Your task to perform on an android device: open app "Speedtest by Ookla" (install if not already installed) Image 0: 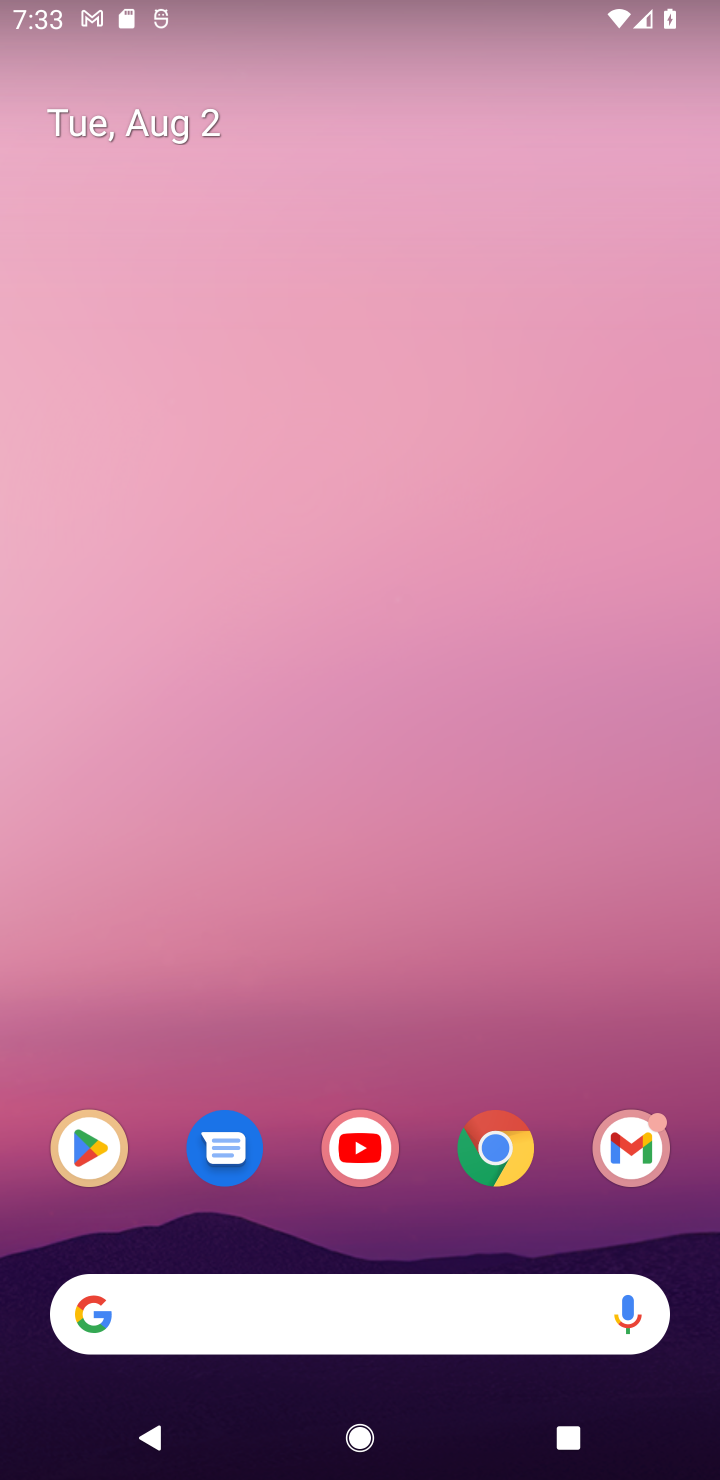
Step 0: drag from (551, 1049) to (215, 90)
Your task to perform on an android device: open app "Speedtest by Ookla" (install if not already installed) Image 1: 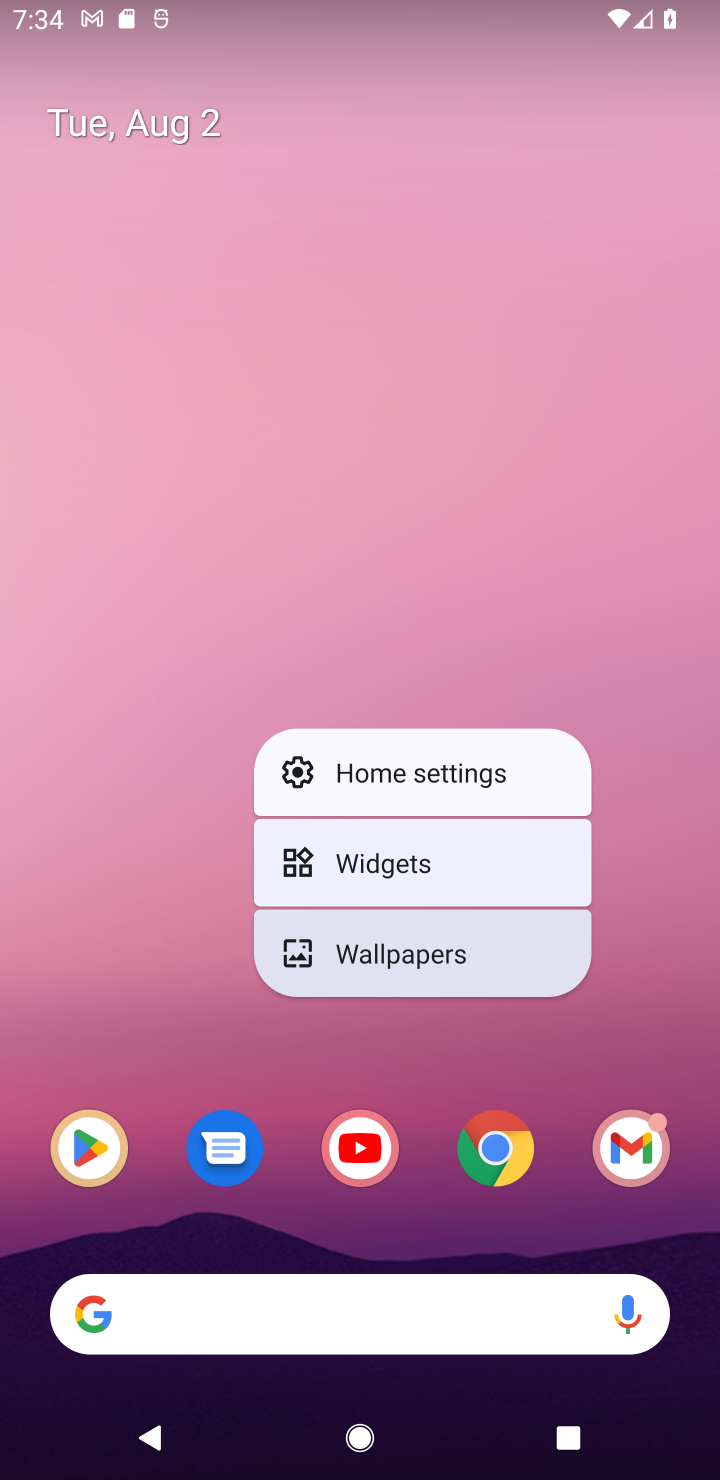
Step 1: click (323, 283)
Your task to perform on an android device: open app "Speedtest by Ookla" (install if not already installed) Image 2: 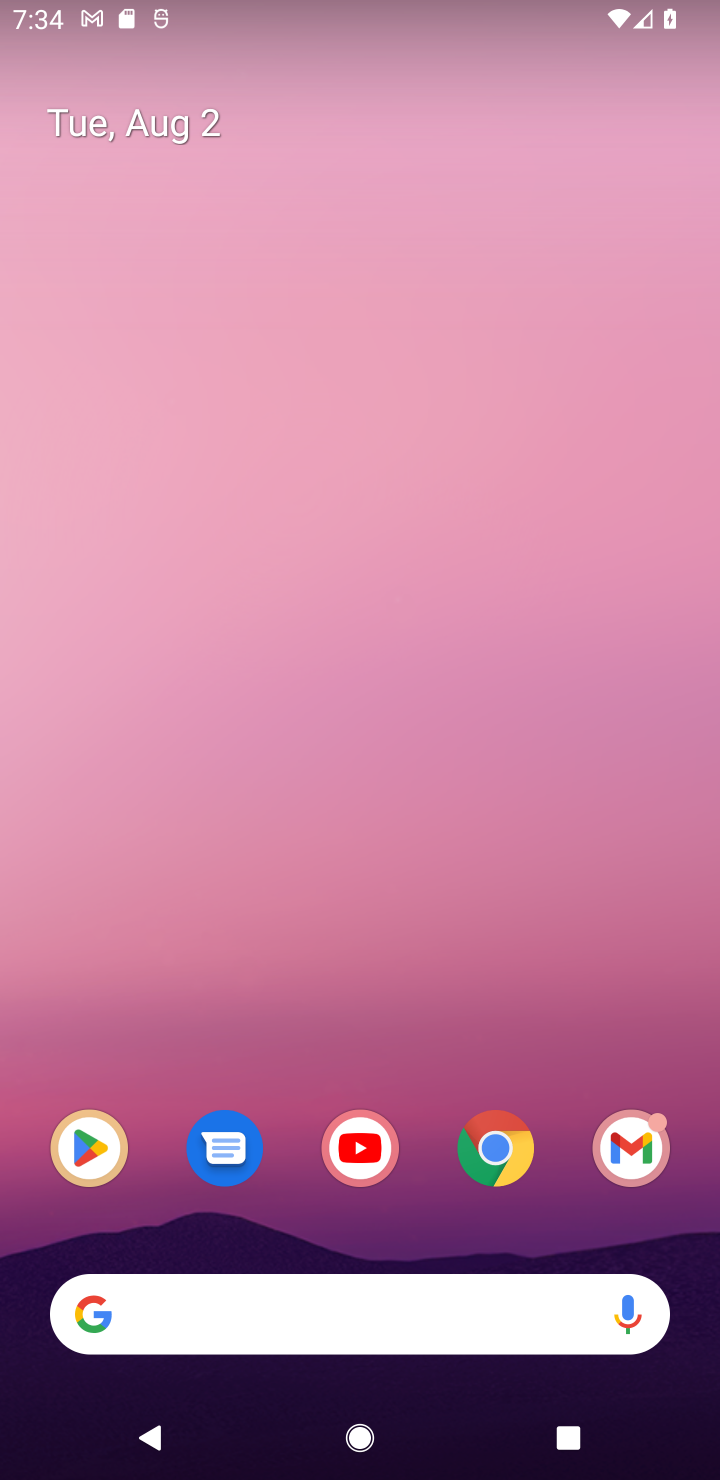
Step 2: drag from (574, 1193) to (284, 44)
Your task to perform on an android device: open app "Speedtest by Ookla" (install if not already installed) Image 3: 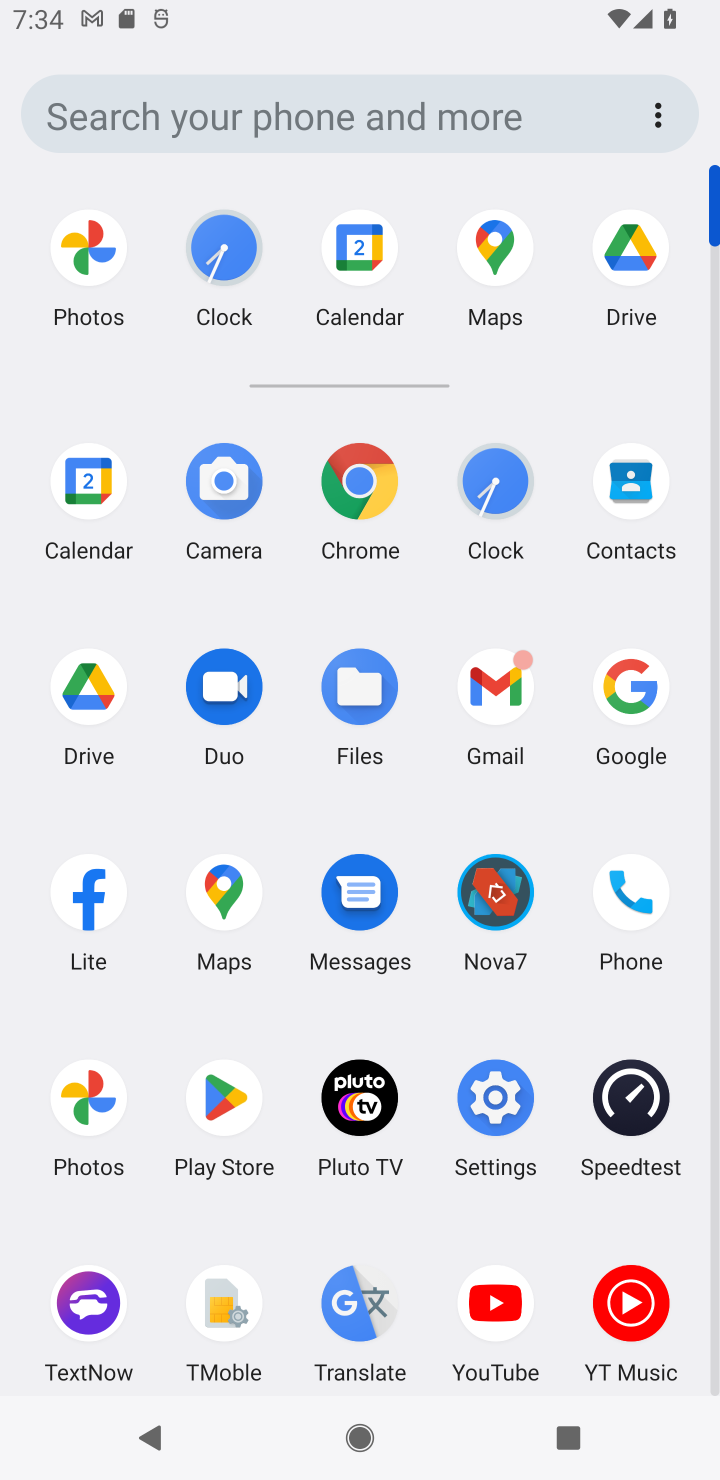
Step 3: click (211, 1120)
Your task to perform on an android device: open app "Speedtest by Ookla" (install if not already installed) Image 4: 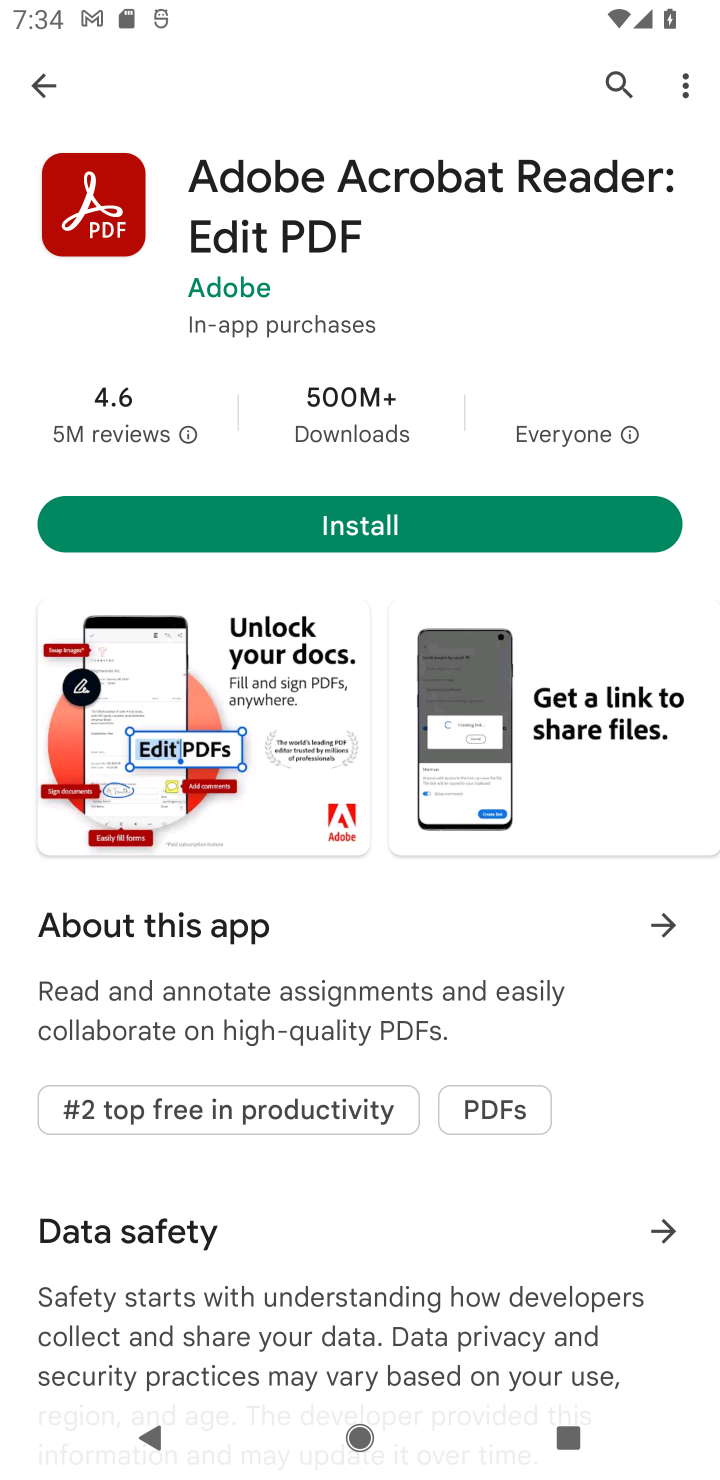
Step 4: press back button
Your task to perform on an android device: open app "Speedtest by Ookla" (install if not already installed) Image 5: 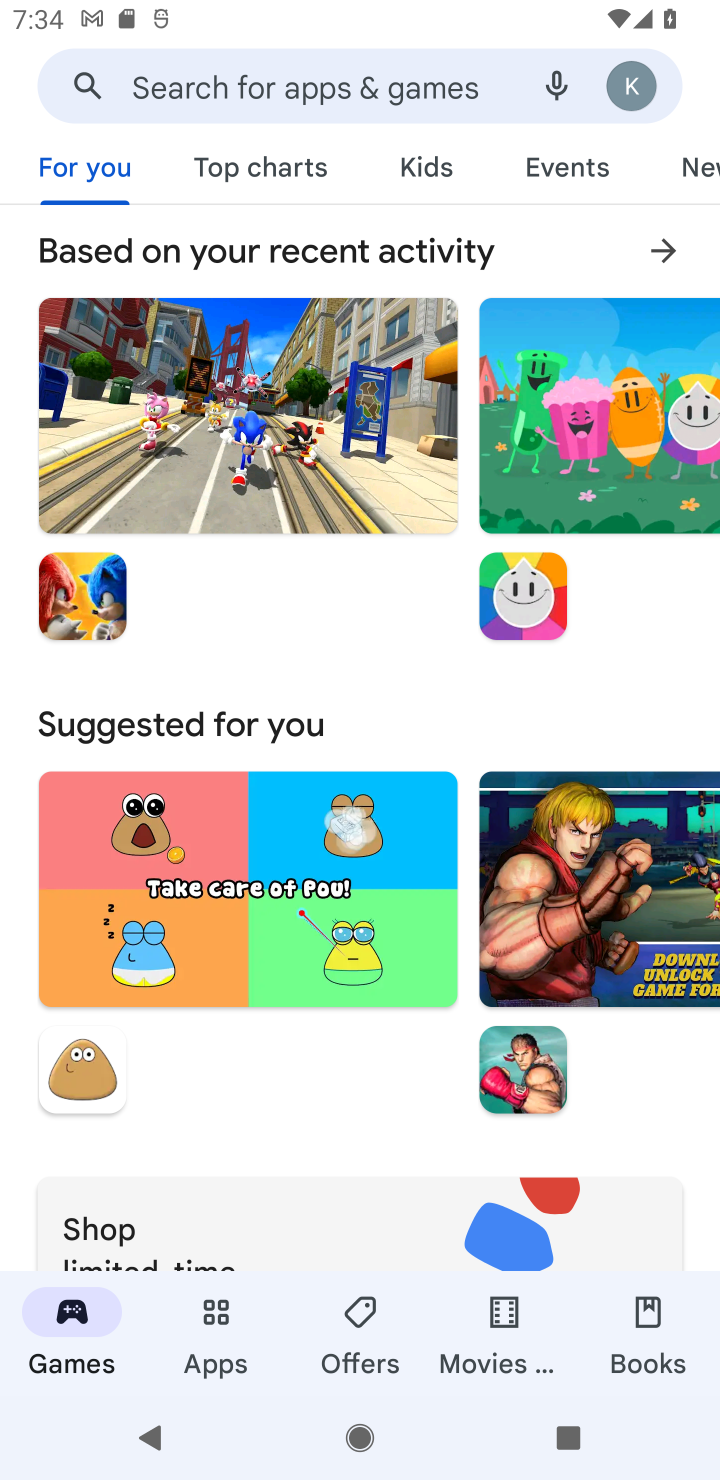
Step 5: click (268, 73)
Your task to perform on an android device: open app "Speedtest by Ookla" (install if not already installed) Image 6: 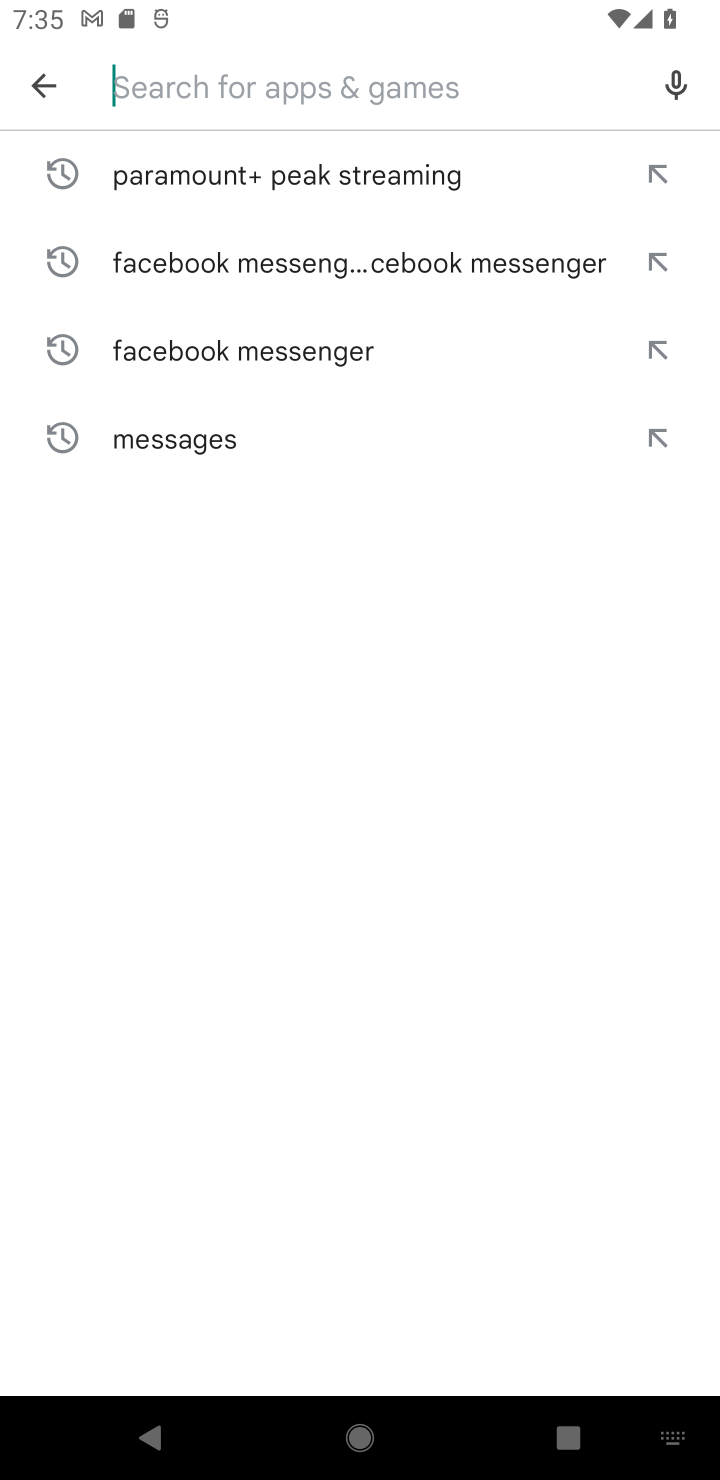
Step 6: type "Speedtest by Ookla"
Your task to perform on an android device: open app "Speedtest by Ookla" (install if not already installed) Image 7: 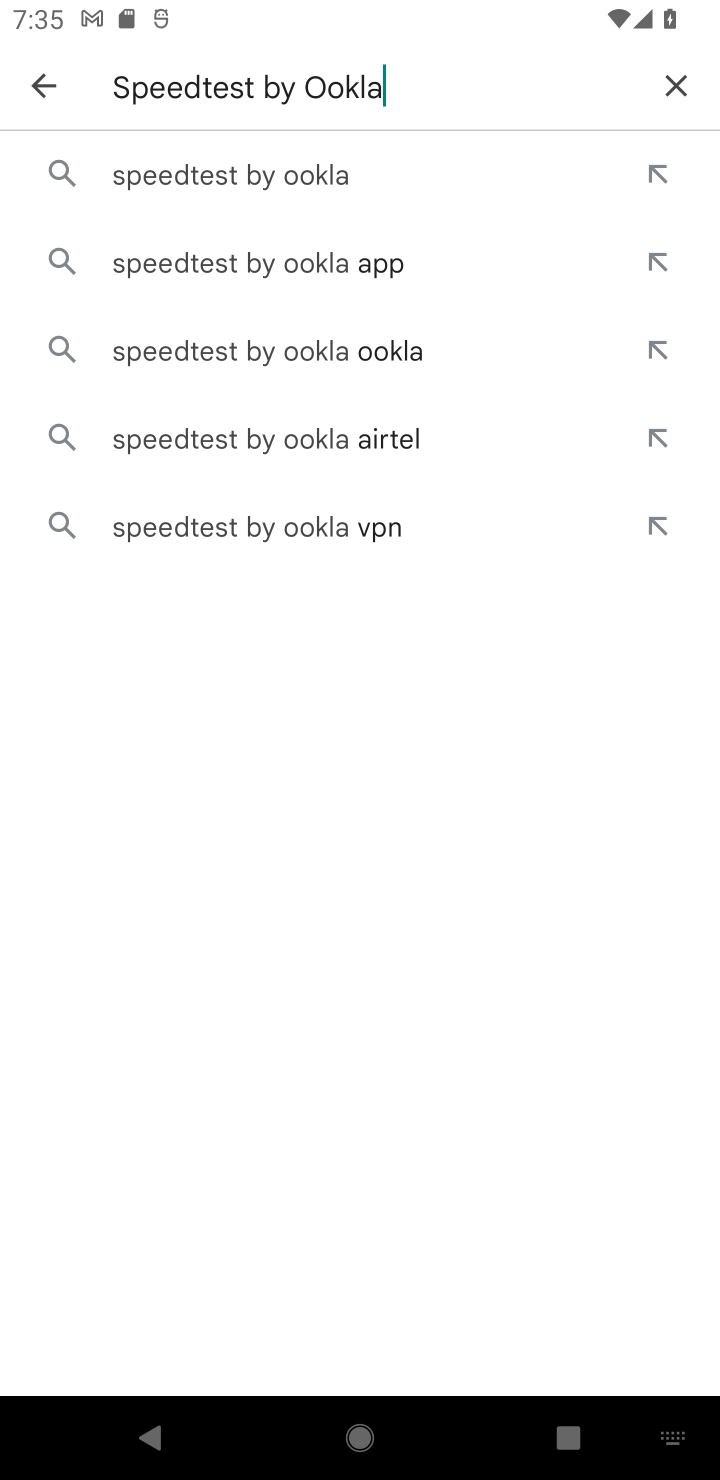
Step 7: click (278, 180)
Your task to perform on an android device: open app "Speedtest by Ookla" (install if not already installed) Image 8: 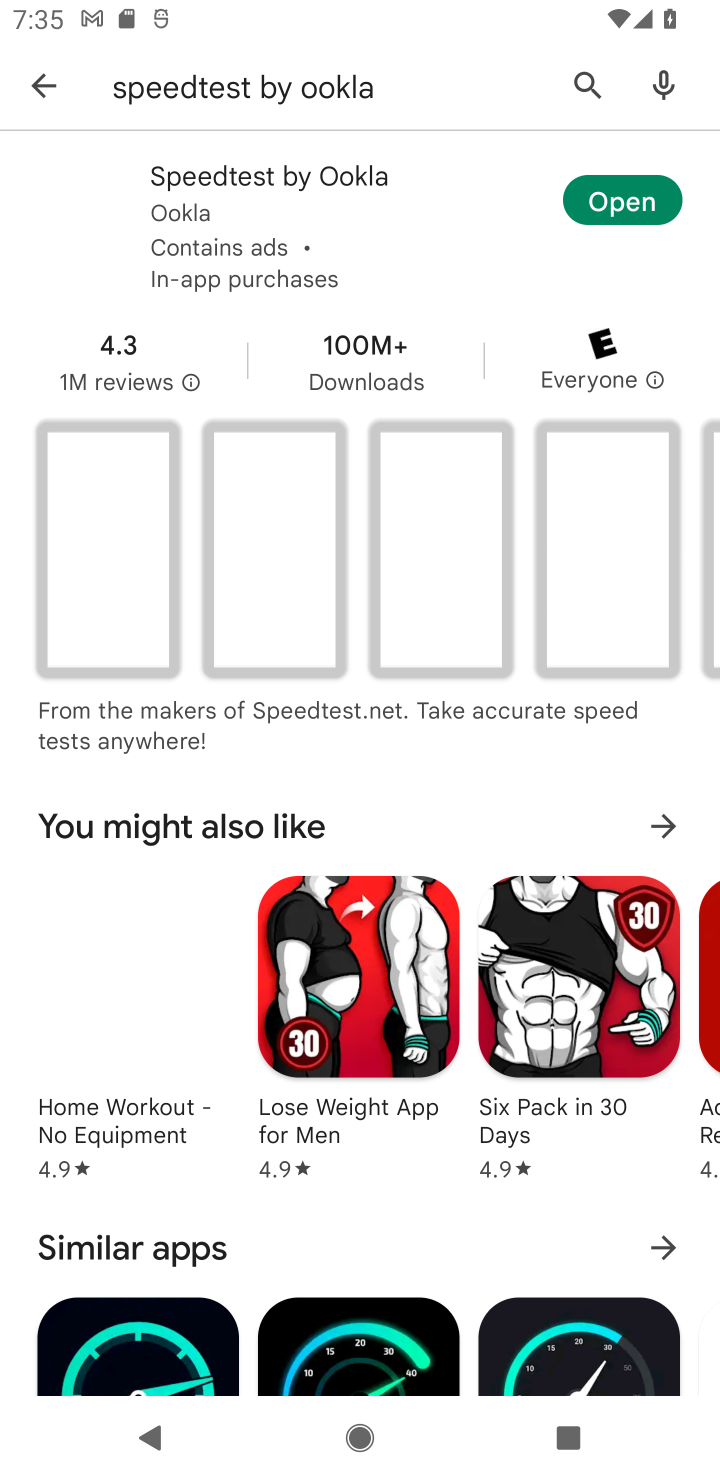
Step 8: click (642, 184)
Your task to perform on an android device: open app "Speedtest by Ookla" (install if not already installed) Image 9: 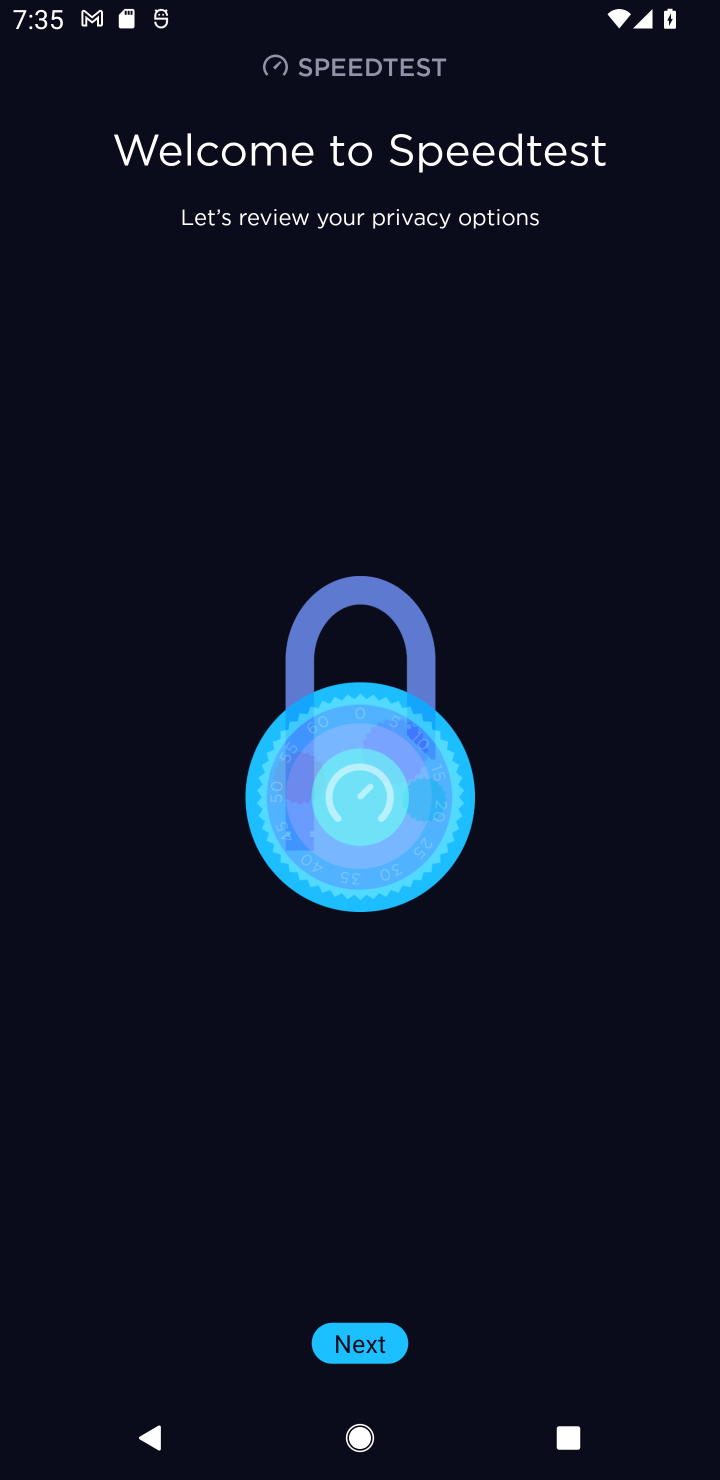
Step 9: task complete